Your task to perform on an android device: Open maps Image 0: 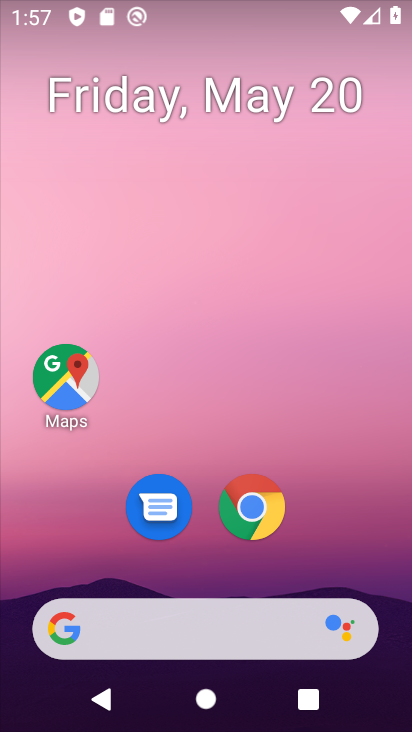
Step 0: click (58, 361)
Your task to perform on an android device: Open maps Image 1: 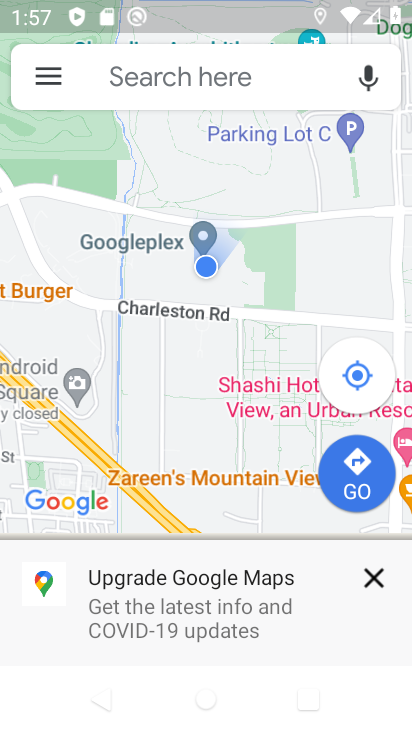
Step 1: task complete